Your task to perform on an android device: open app "Google Play Games" (install if not already installed) Image 0: 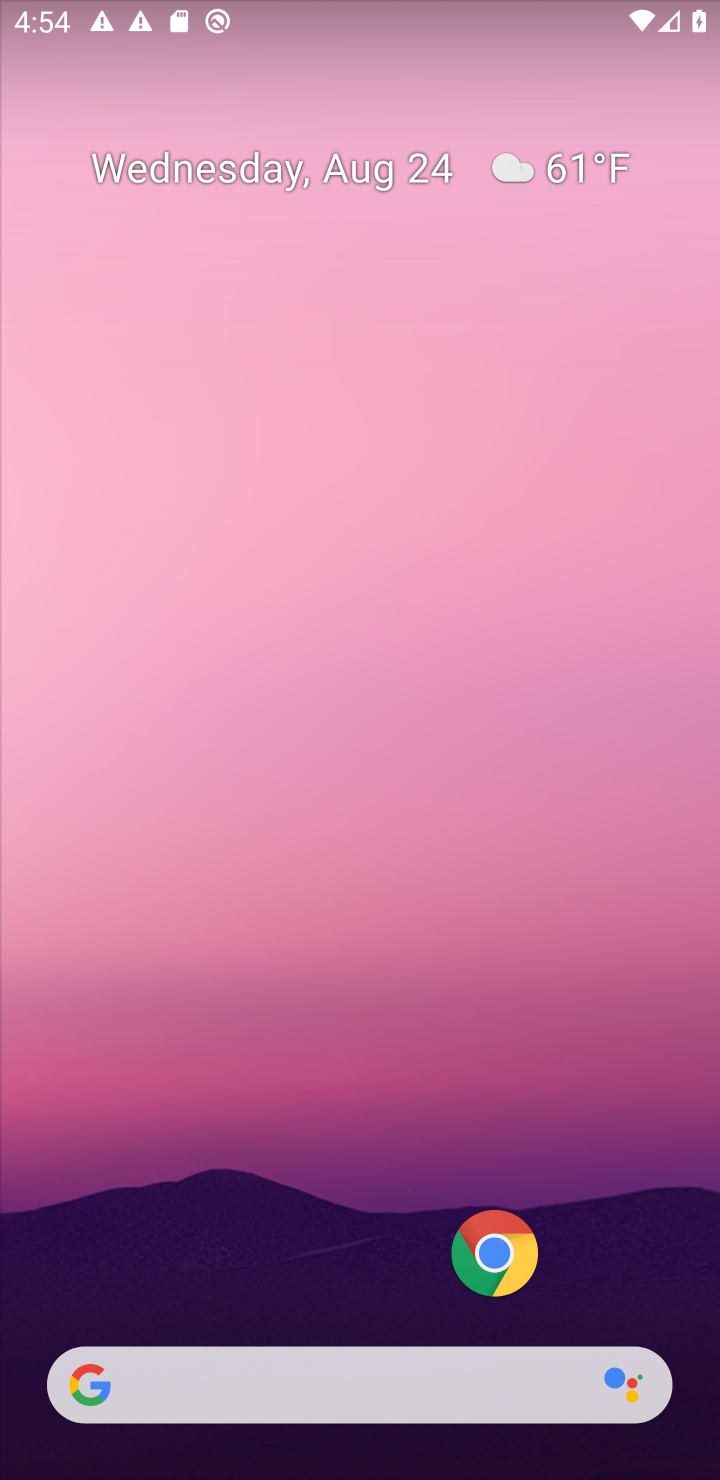
Step 0: drag from (346, 766) to (353, 273)
Your task to perform on an android device: open app "Google Play Games" (install if not already installed) Image 1: 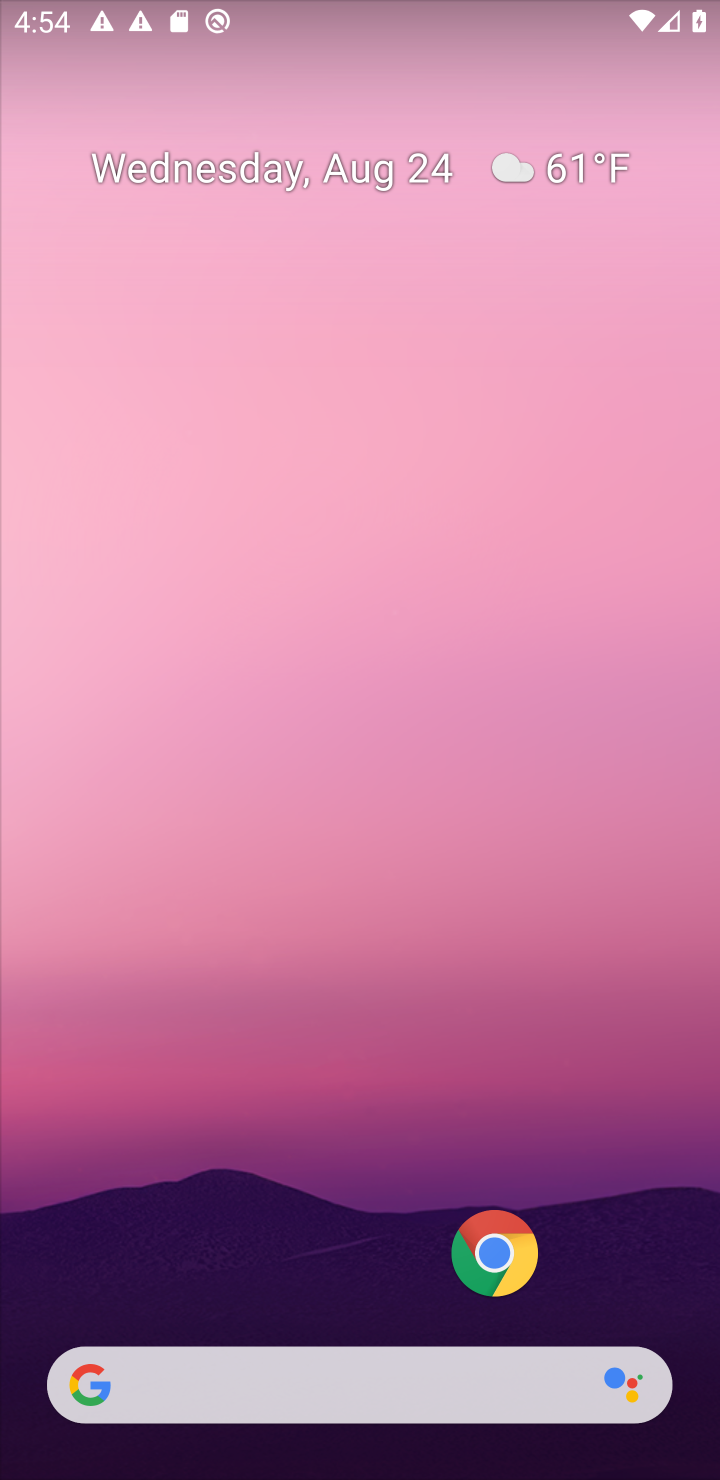
Step 1: drag from (256, 1215) to (438, 140)
Your task to perform on an android device: open app "Google Play Games" (install if not already installed) Image 2: 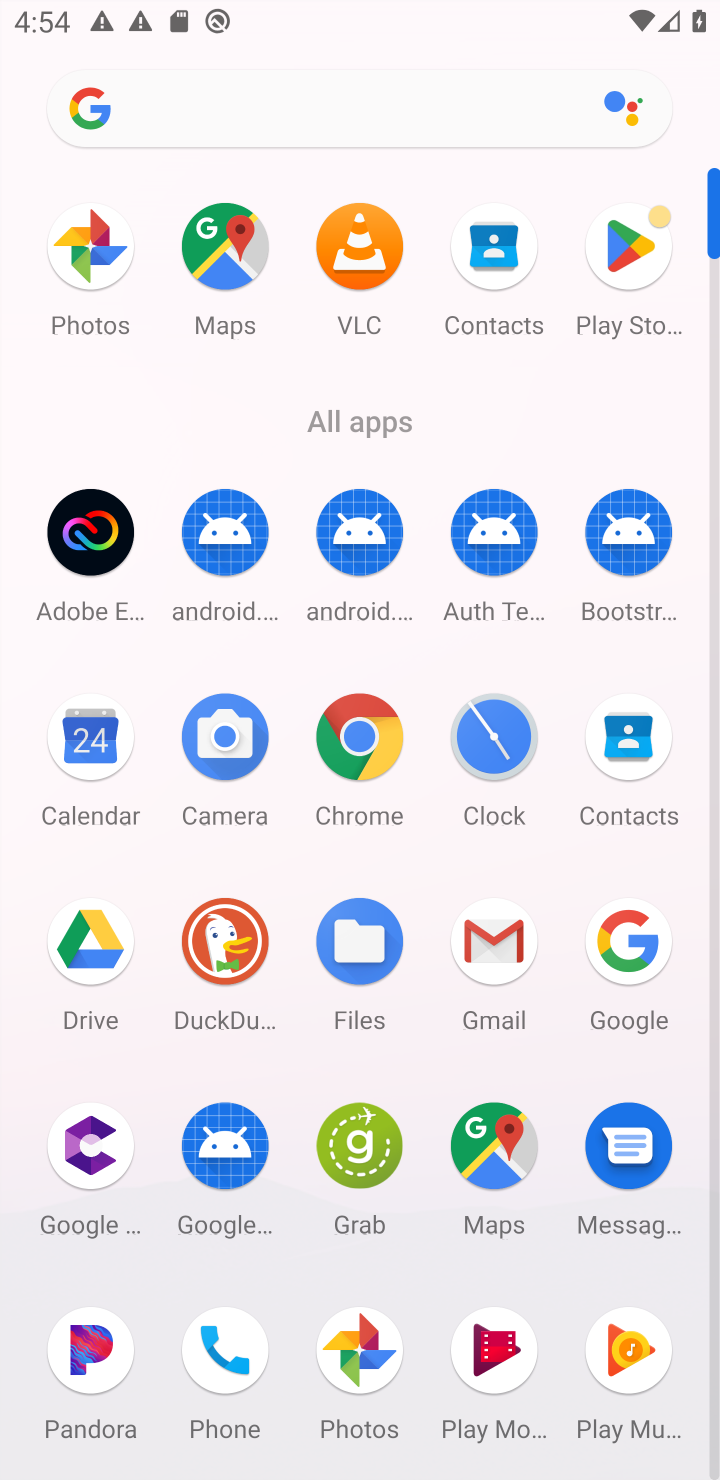
Step 2: click (649, 240)
Your task to perform on an android device: open app "Google Play Games" (install if not already installed) Image 3: 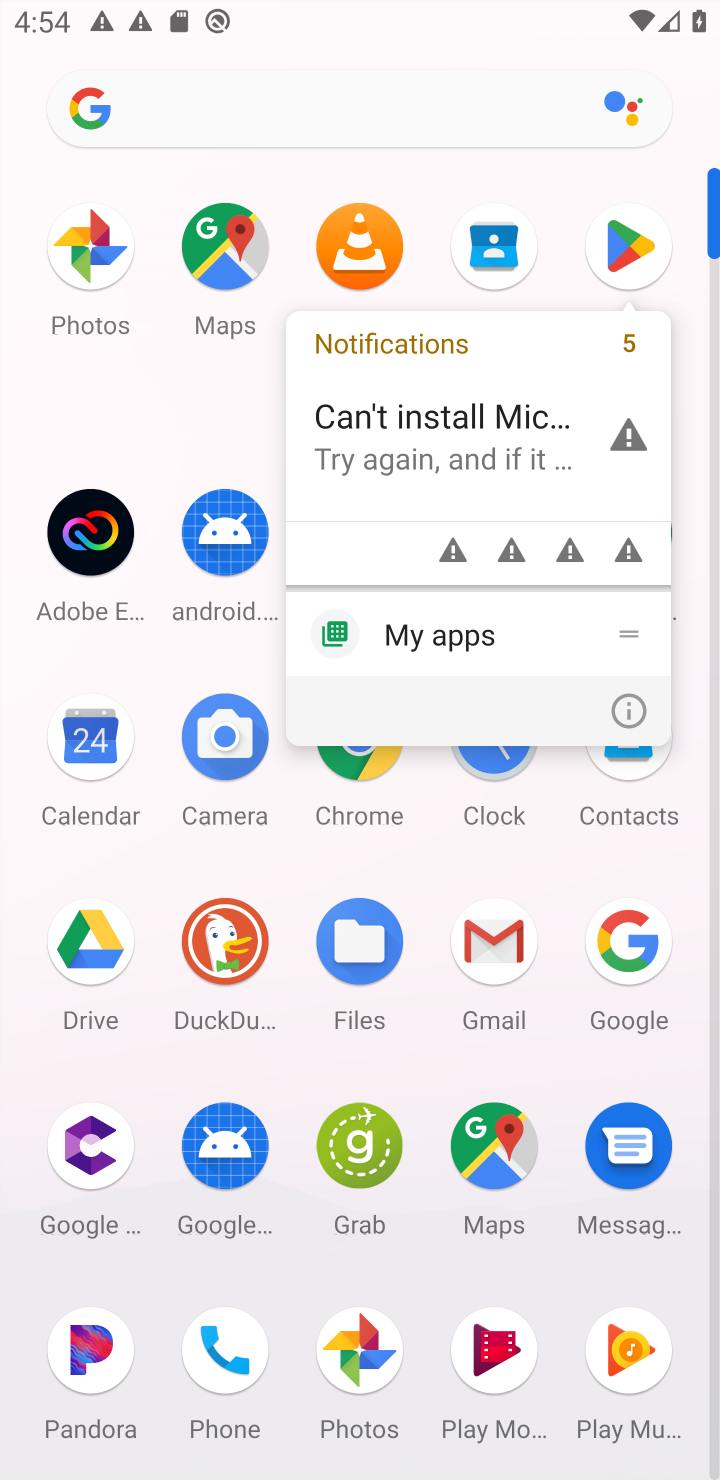
Step 3: click (625, 245)
Your task to perform on an android device: open app "Google Play Games" (install if not already installed) Image 4: 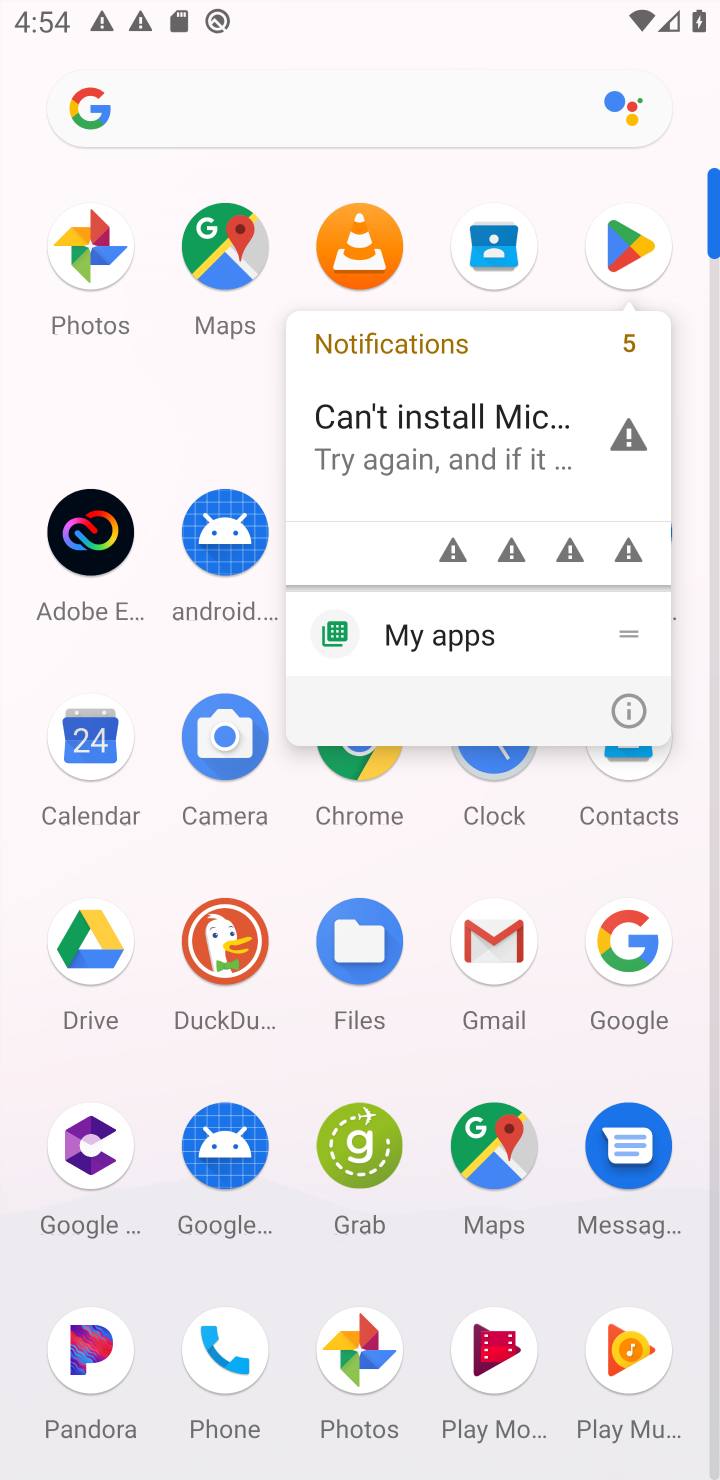
Step 4: click (625, 245)
Your task to perform on an android device: open app "Google Play Games" (install if not already installed) Image 5: 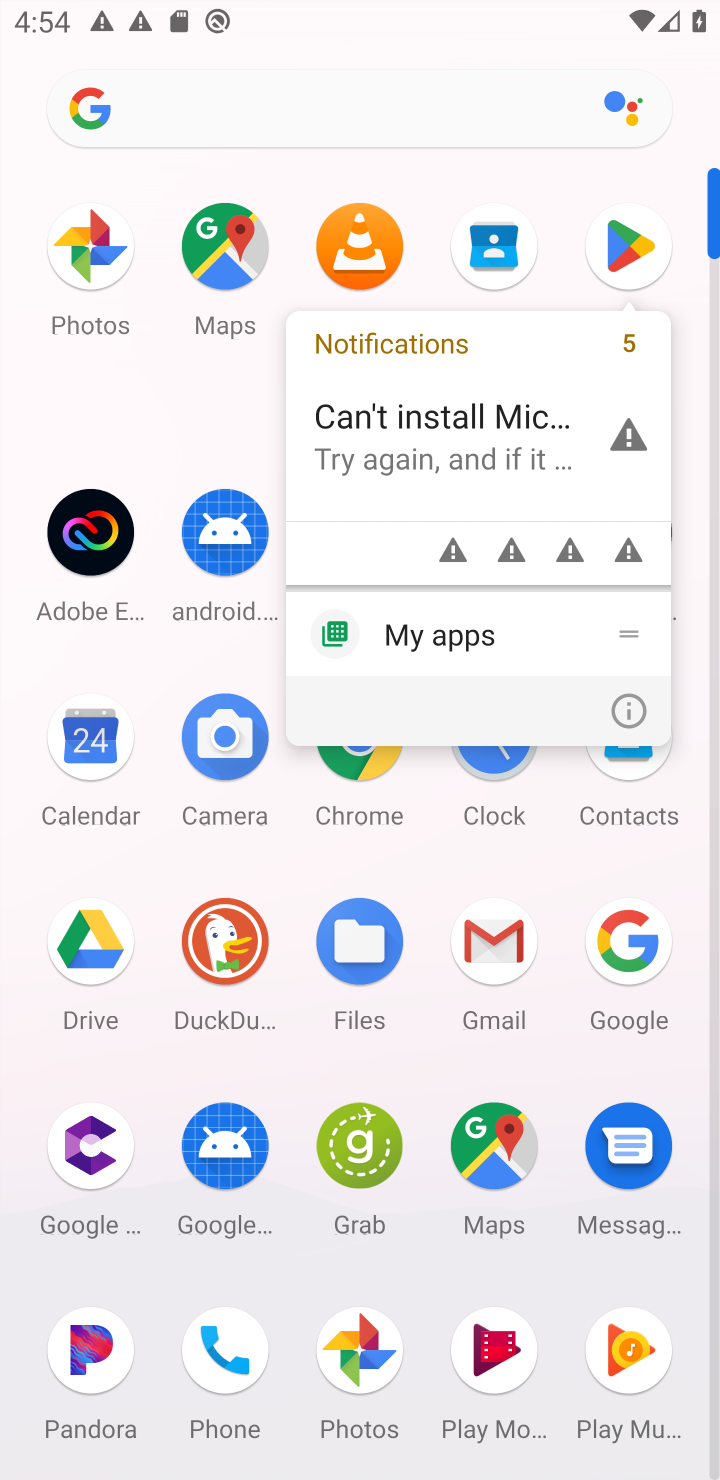
Step 5: click (634, 248)
Your task to perform on an android device: open app "Google Play Games" (install if not already installed) Image 6: 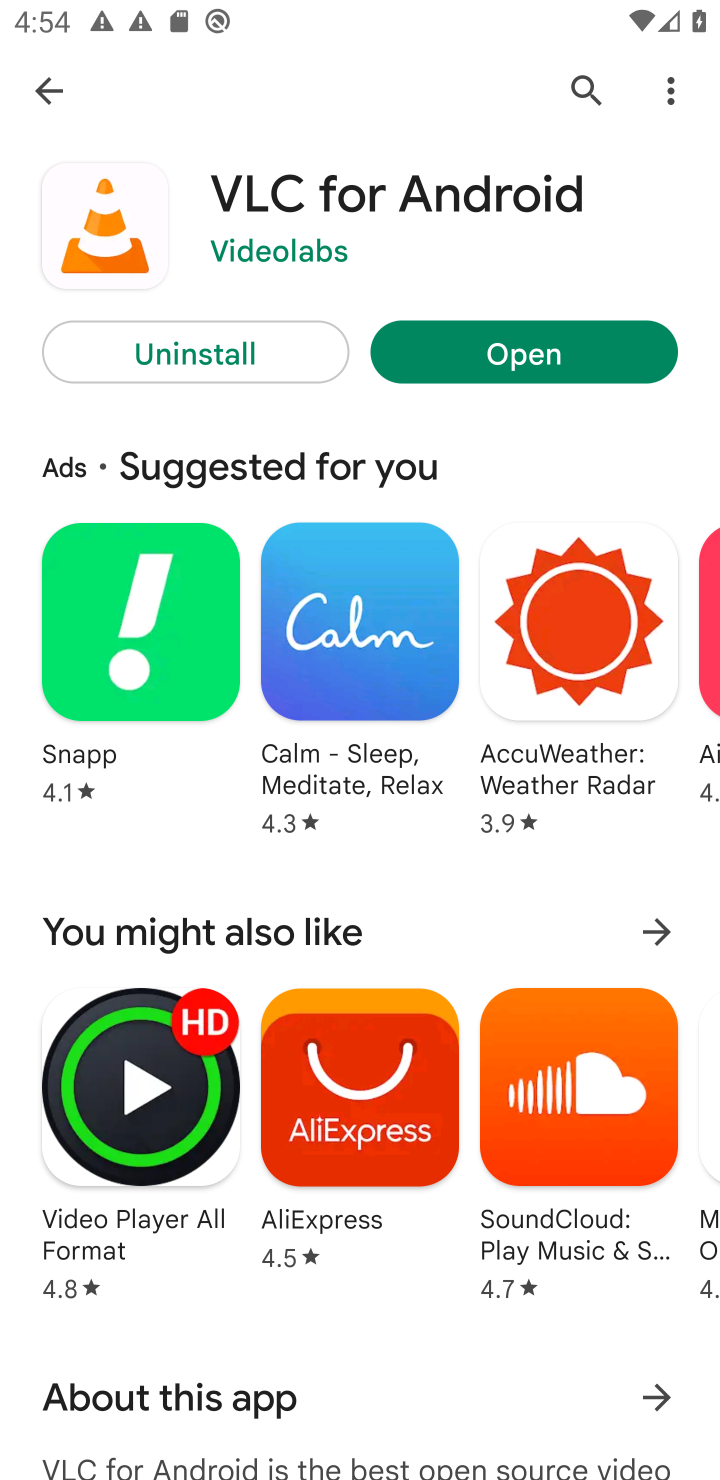
Step 6: click (585, 88)
Your task to perform on an android device: open app "Google Play Games" (install if not already installed) Image 7: 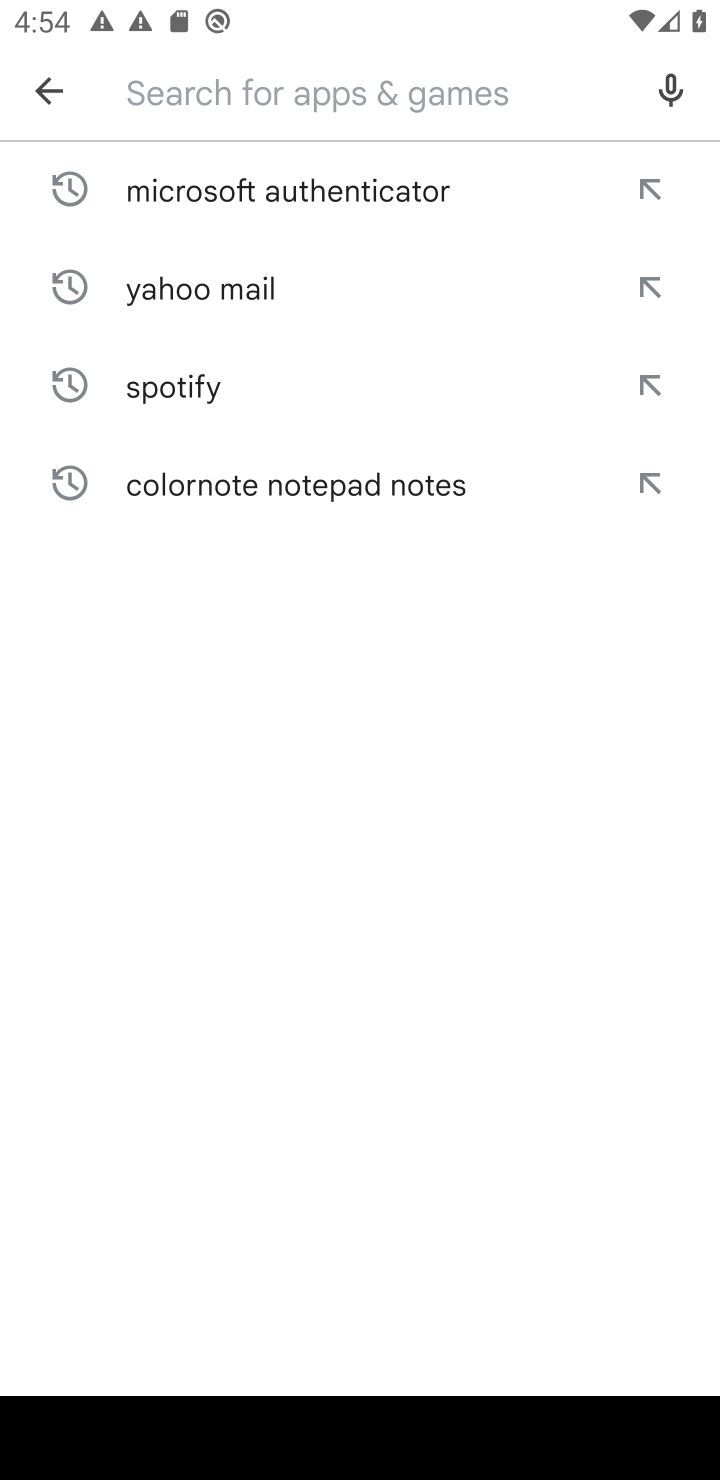
Step 7: click (292, 83)
Your task to perform on an android device: open app "Google Play Games" (install if not already installed) Image 8: 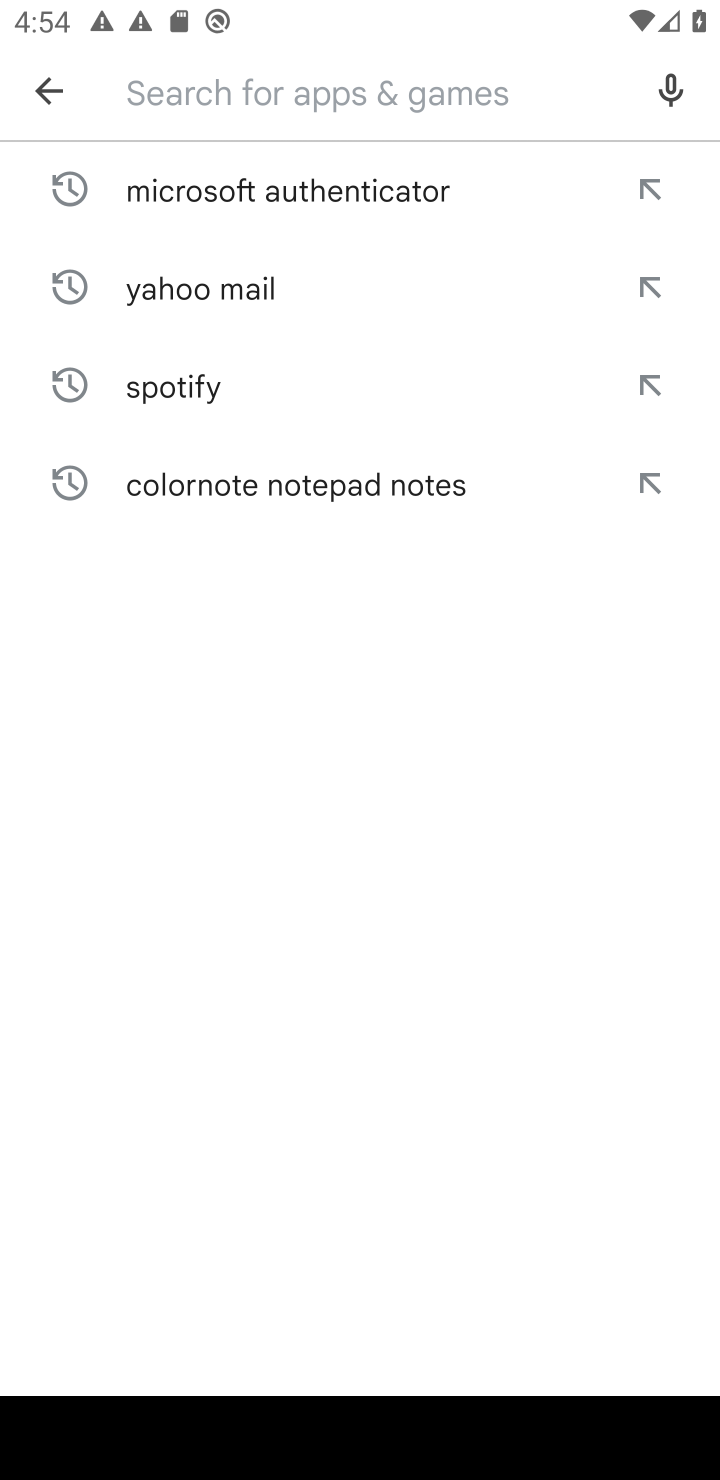
Step 8: click (292, 83)
Your task to perform on an android device: open app "Google Play Games" (install if not already installed) Image 9: 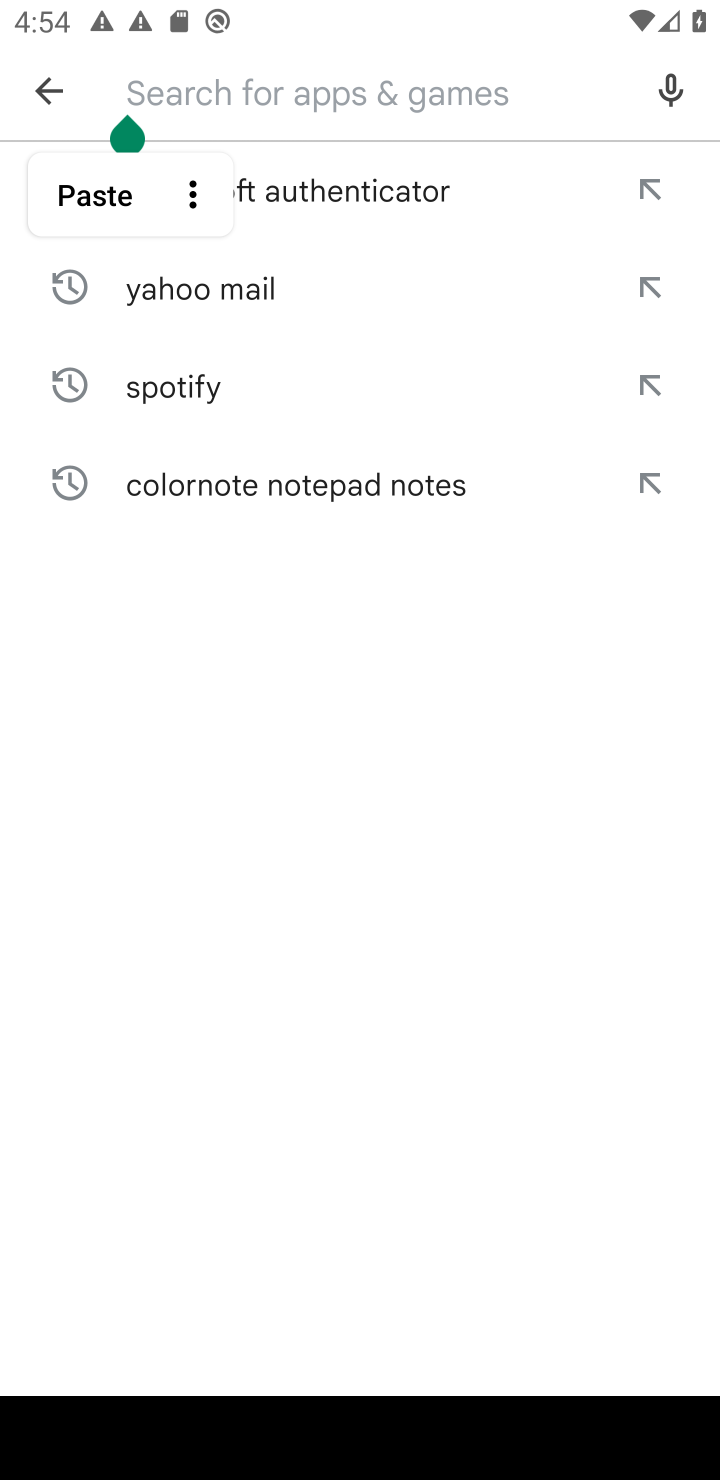
Step 9: type "Google Play Games"
Your task to perform on an android device: open app "Google Play Games" (install if not already installed) Image 10: 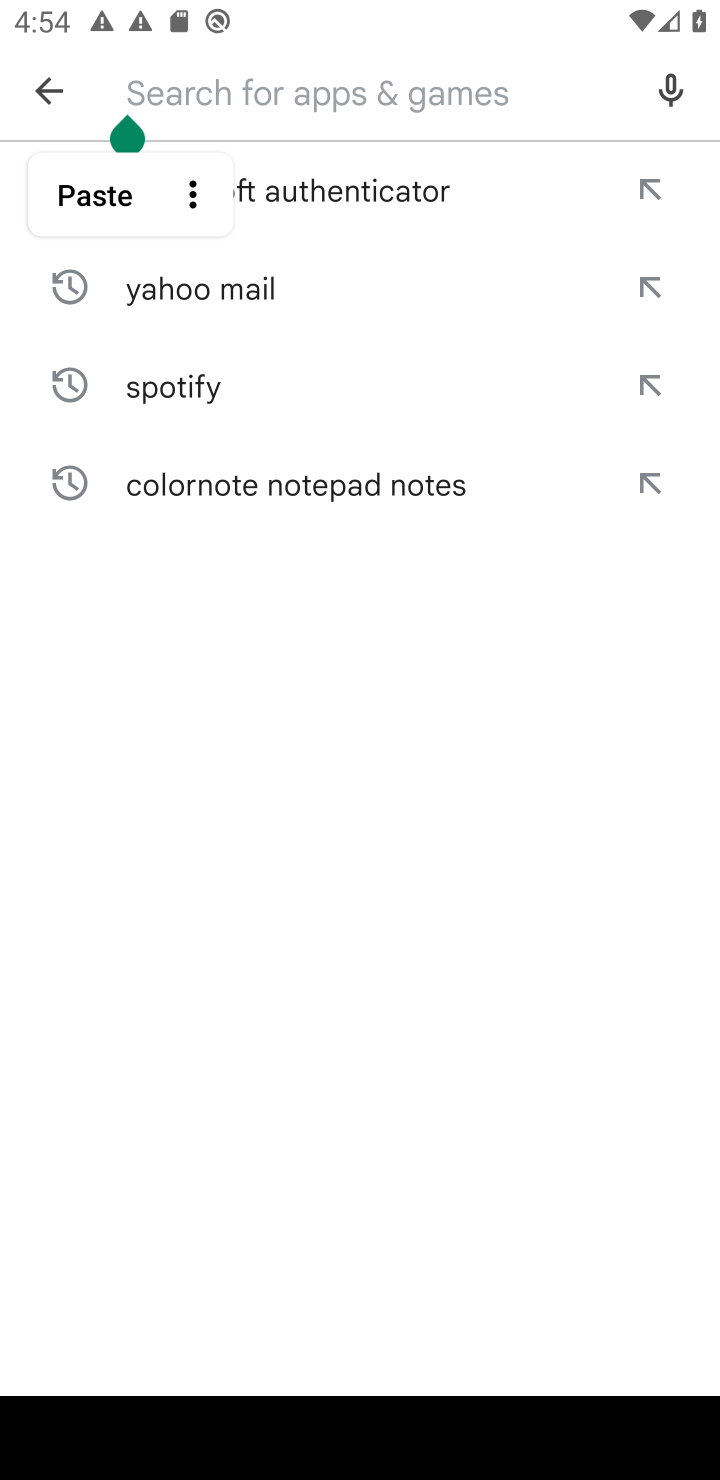
Step 10: click (379, 1071)
Your task to perform on an android device: open app "Google Play Games" (install if not already installed) Image 11: 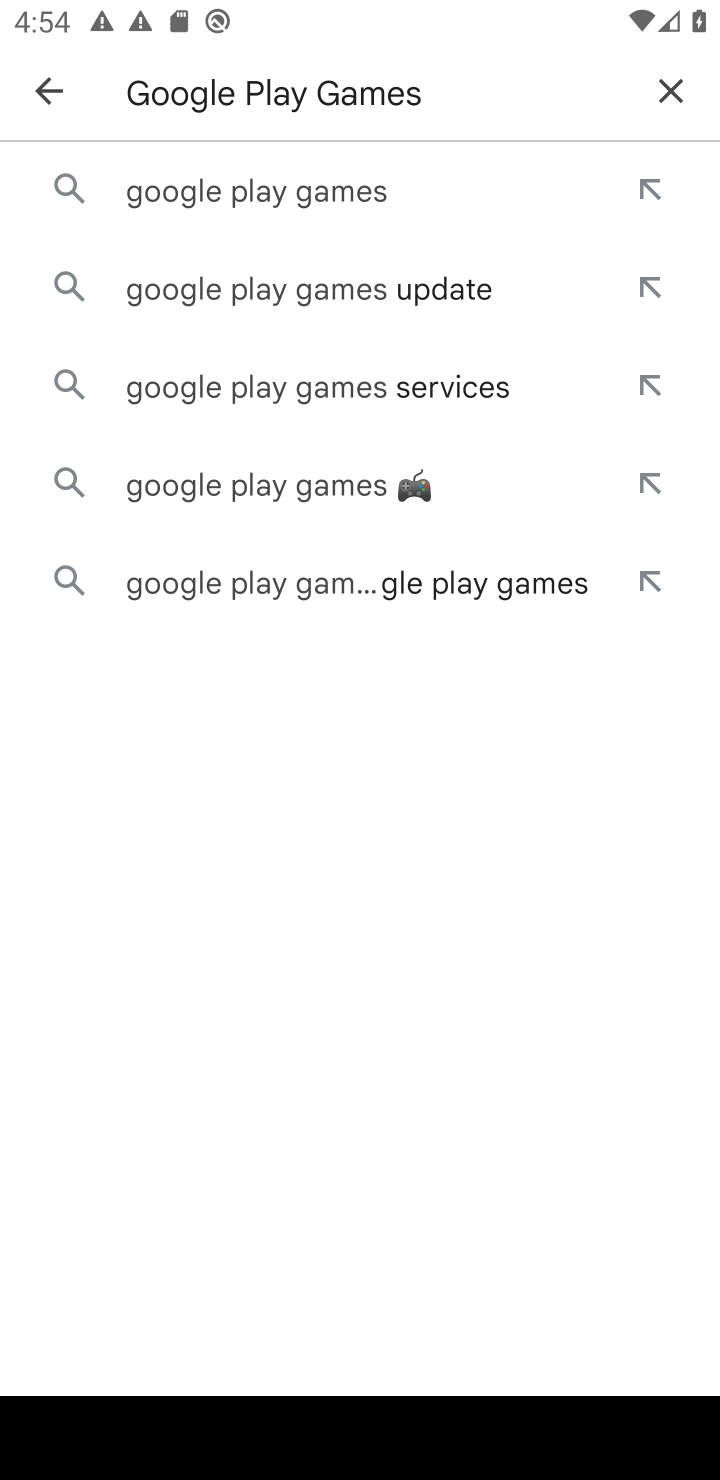
Step 11: click (282, 191)
Your task to perform on an android device: open app "Google Play Games" (install if not already installed) Image 12: 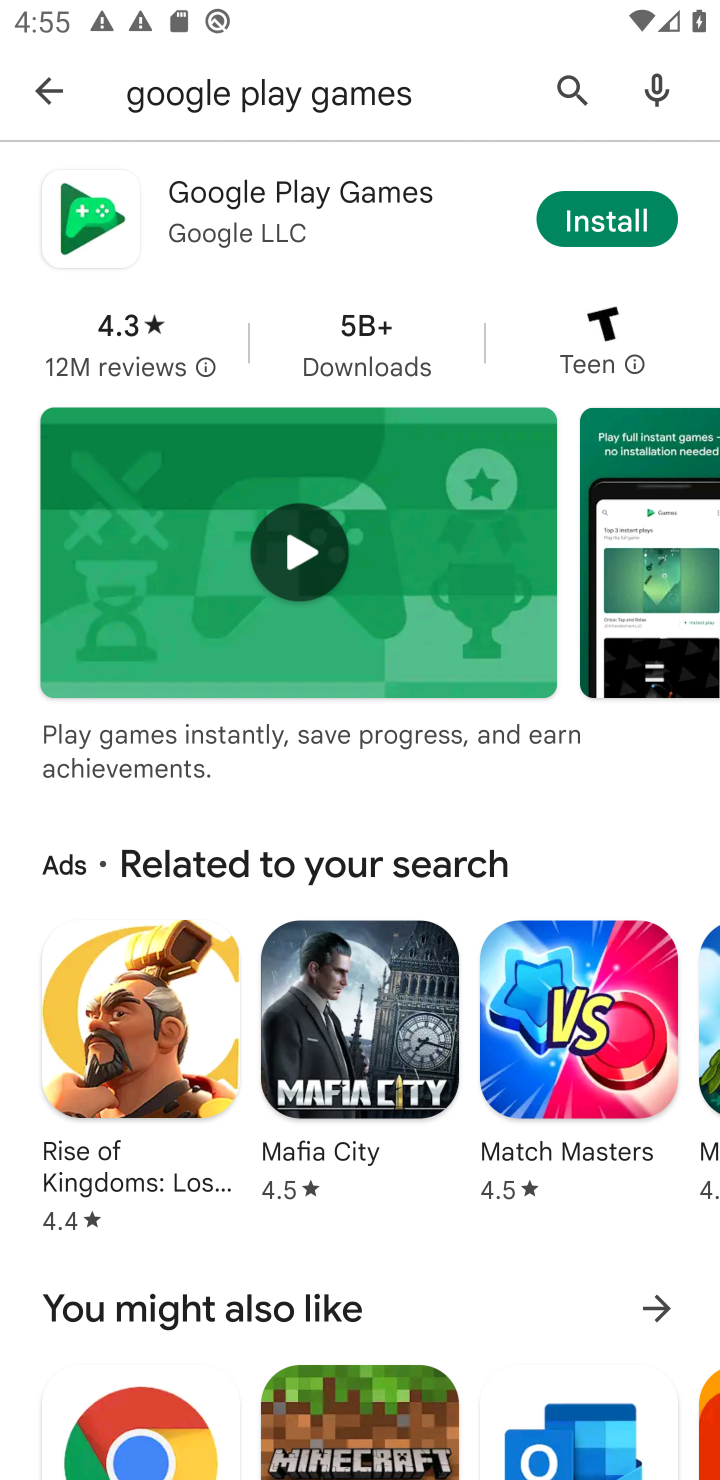
Step 12: click (587, 221)
Your task to perform on an android device: open app "Google Play Games" (install if not already installed) Image 13: 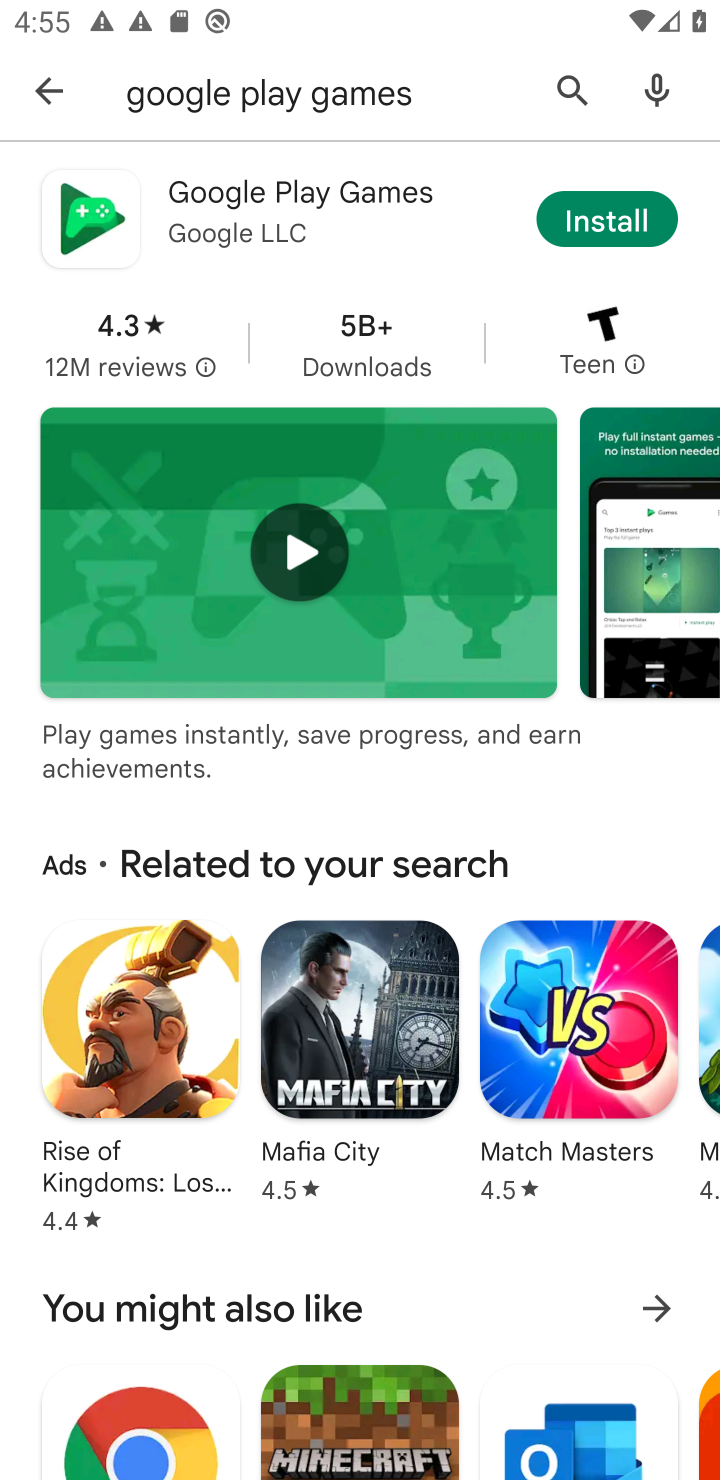
Step 13: click (587, 221)
Your task to perform on an android device: open app "Google Play Games" (install if not already installed) Image 14: 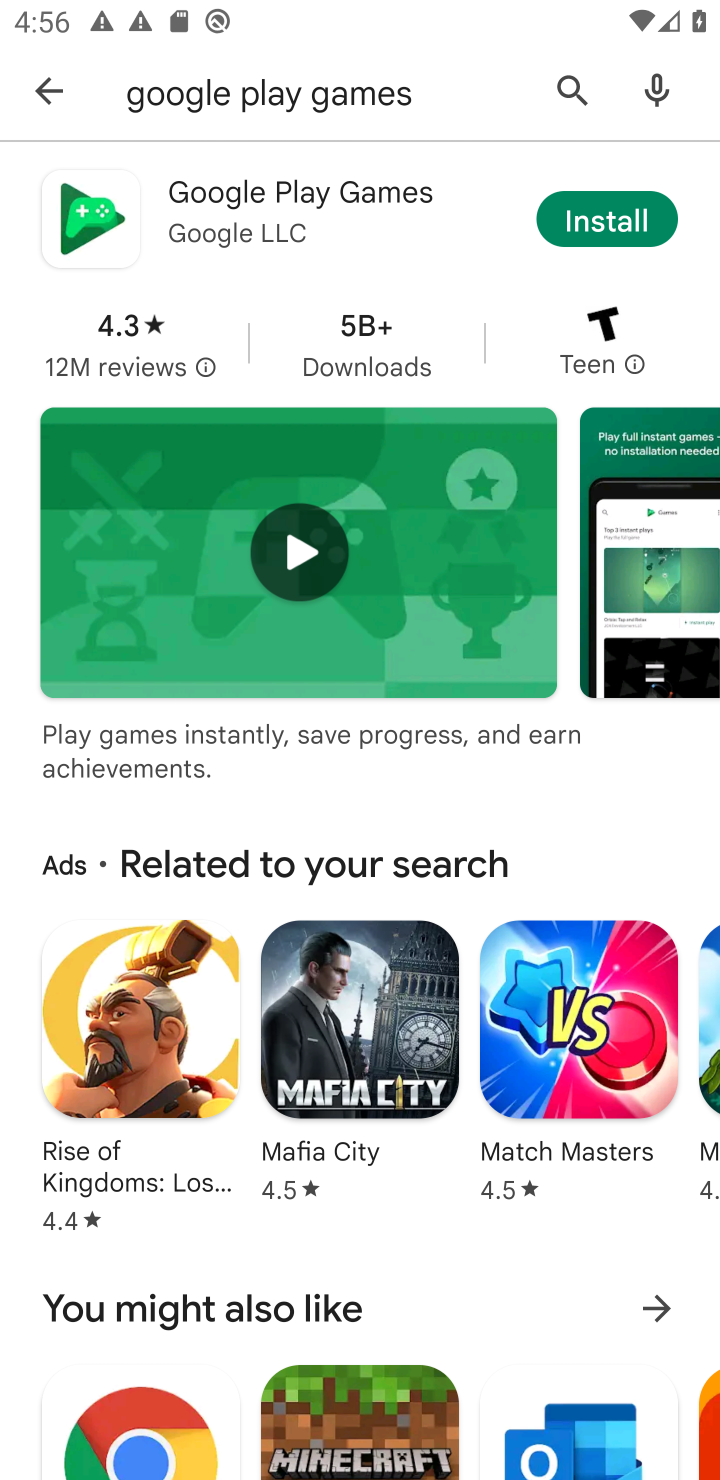
Step 14: click (633, 203)
Your task to perform on an android device: open app "Google Play Games" (install if not already installed) Image 15: 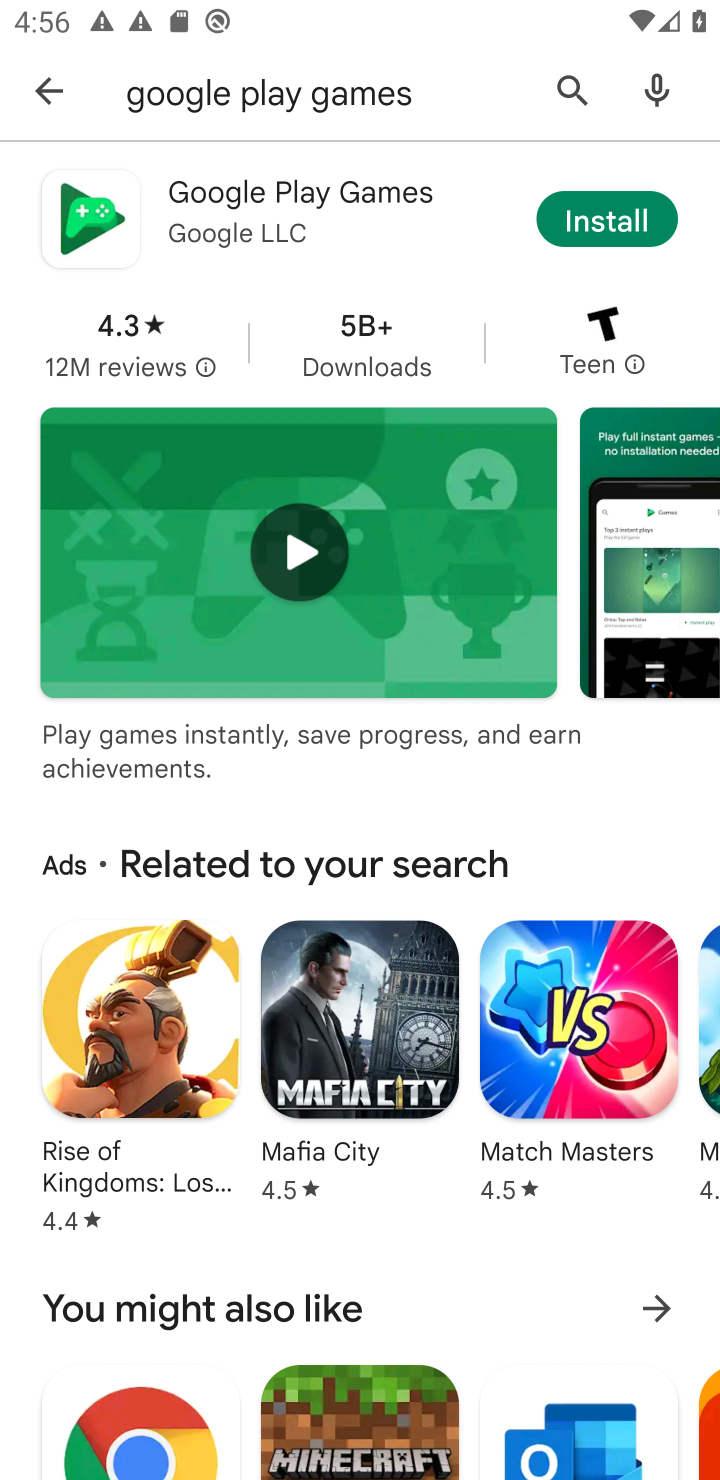
Step 15: click (618, 225)
Your task to perform on an android device: open app "Google Play Games" (install if not already installed) Image 16: 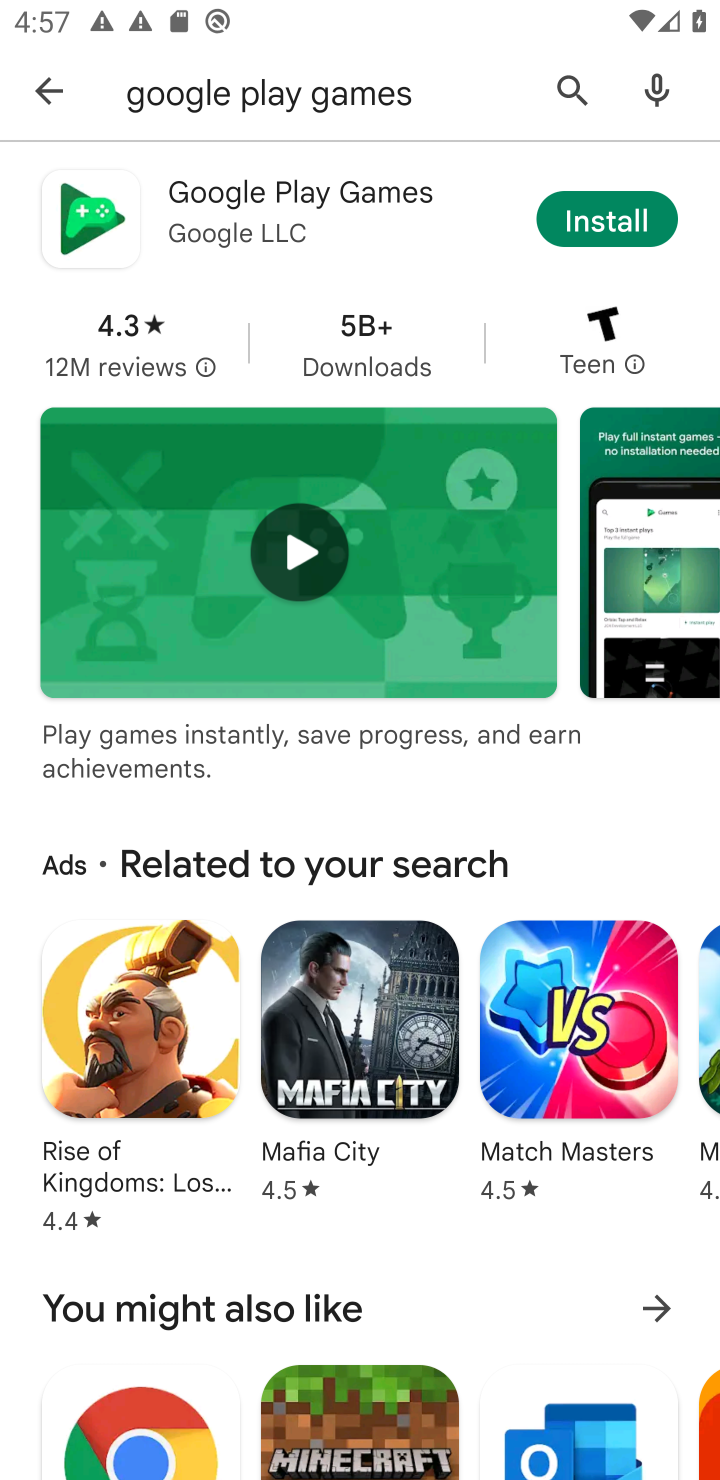
Step 16: click (605, 218)
Your task to perform on an android device: open app "Google Play Games" (install if not already installed) Image 17: 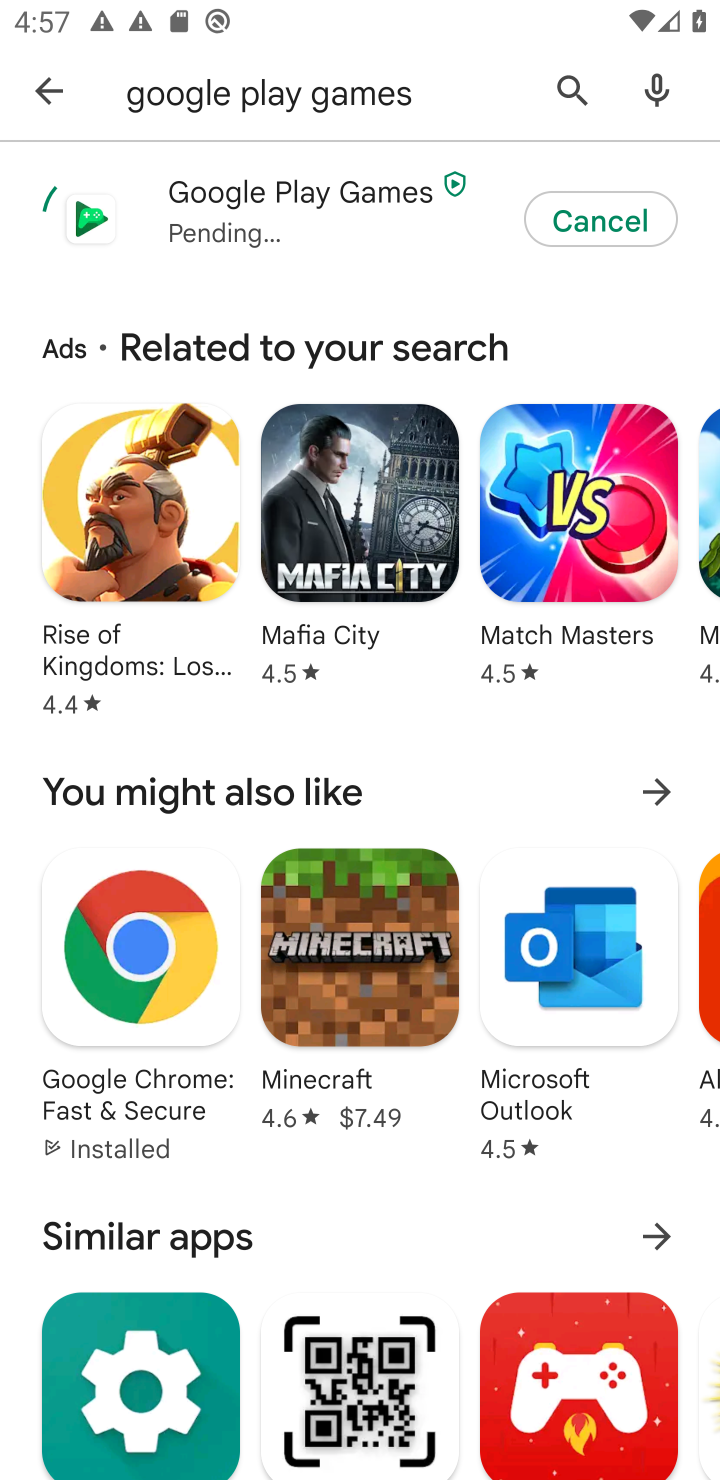
Step 17: click (570, 213)
Your task to perform on an android device: open app "Google Play Games" (install if not already installed) Image 18: 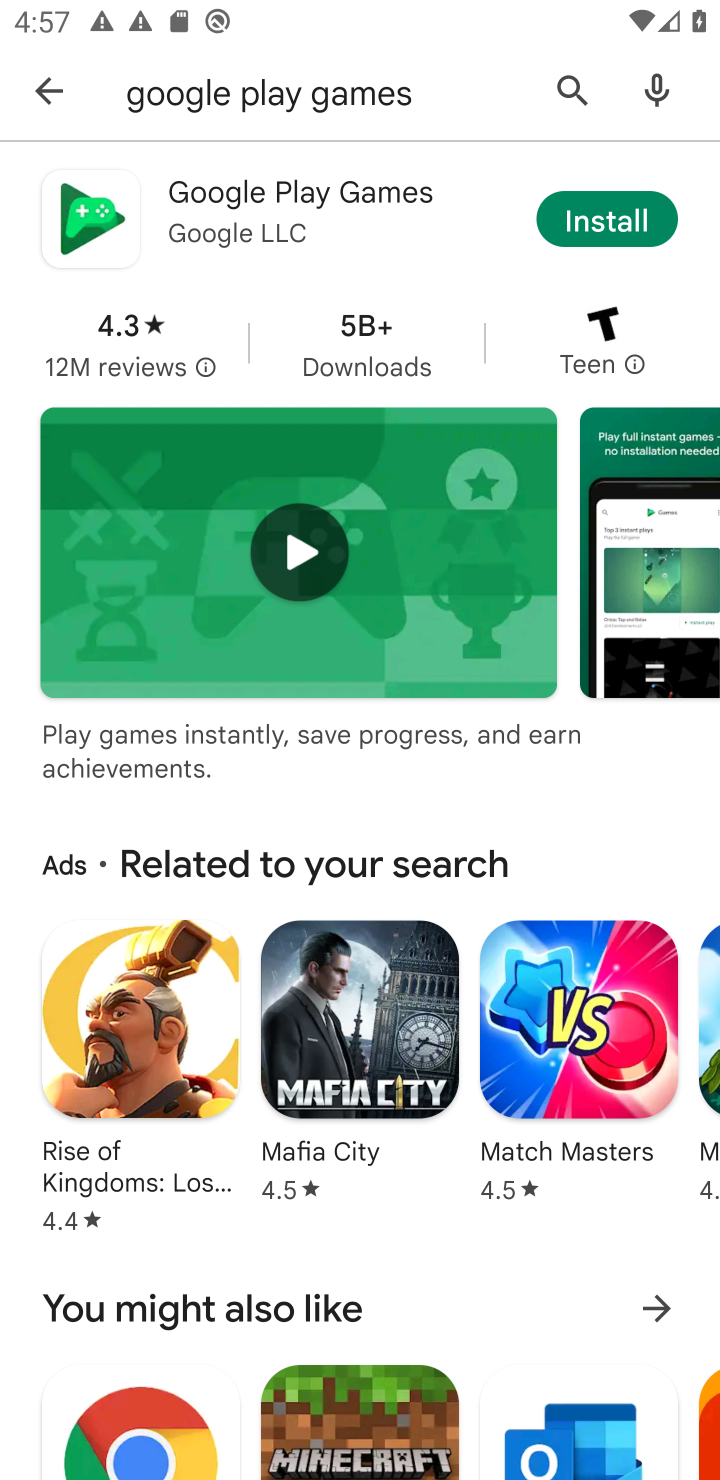
Step 18: task complete